Your task to perform on an android device: What is the news today? Image 0: 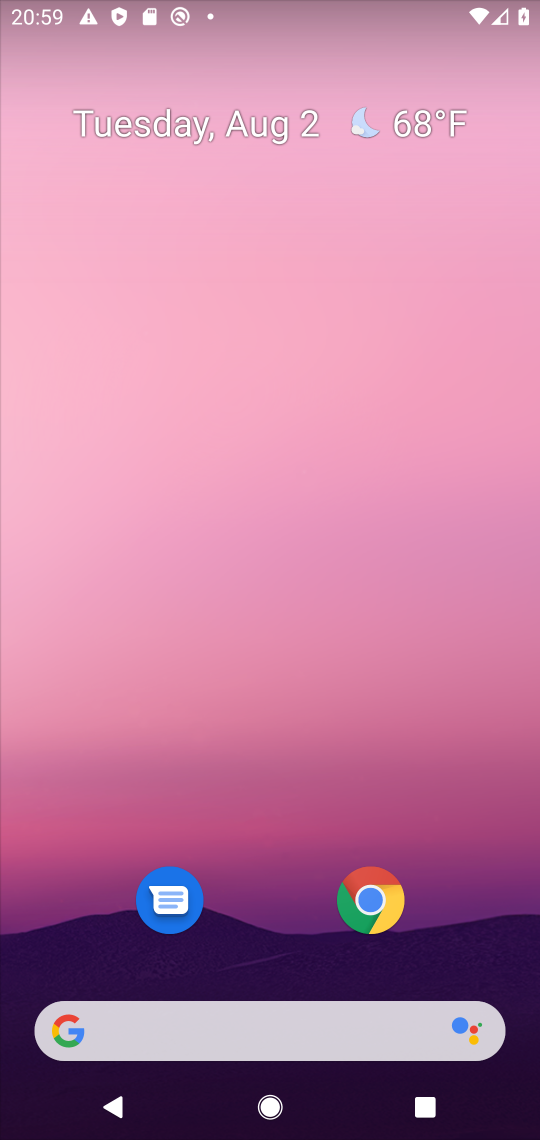
Step 0: click (274, 1028)
Your task to perform on an android device: What is the news today? Image 1: 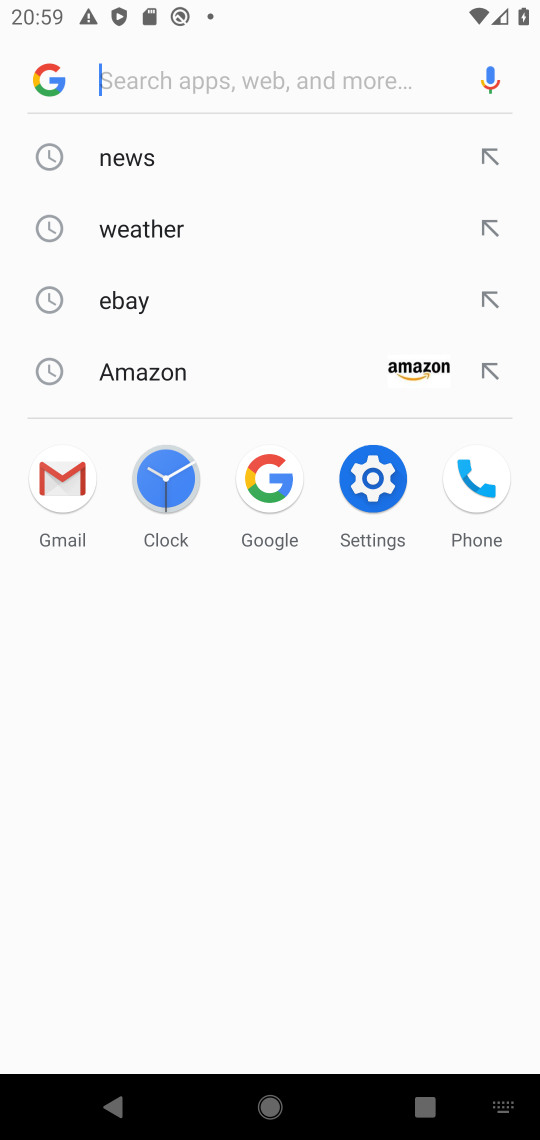
Step 1: click (139, 156)
Your task to perform on an android device: What is the news today? Image 2: 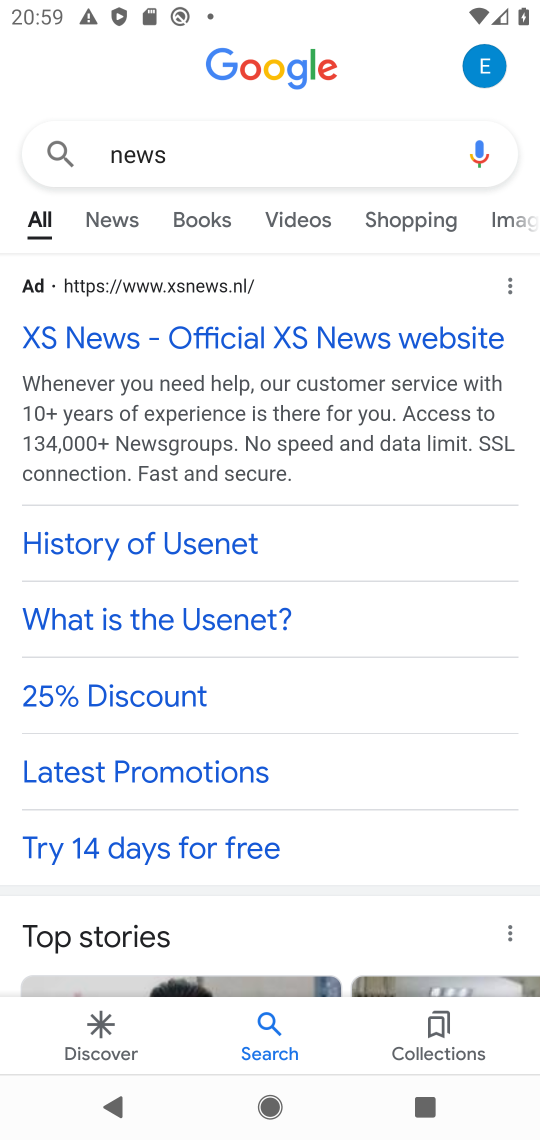
Step 2: click (116, 220)
Your task to perform on an android device: What is the news today? Image 3: 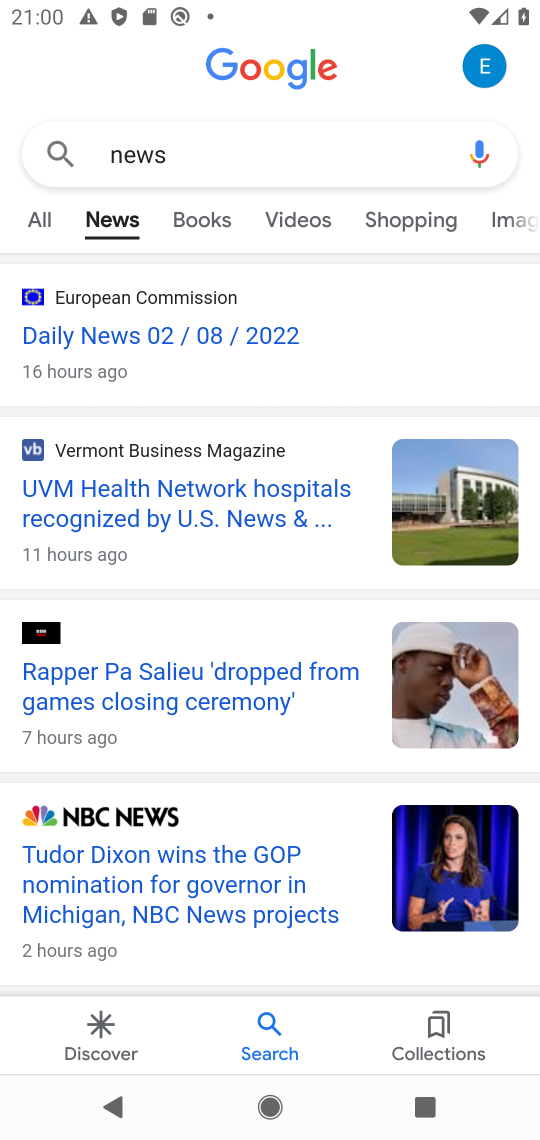
Step 3: task complete